Your task to perform on an android device: all mails in gmail Image 0: 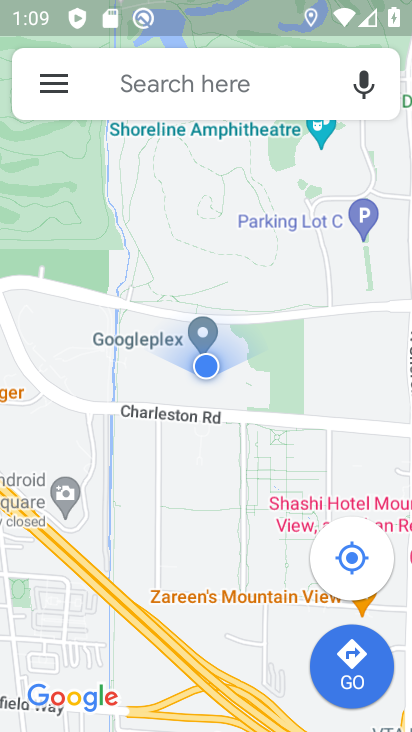
Step 0: press home button
Your task to perform on an android device: all mails in gmail Image 1: 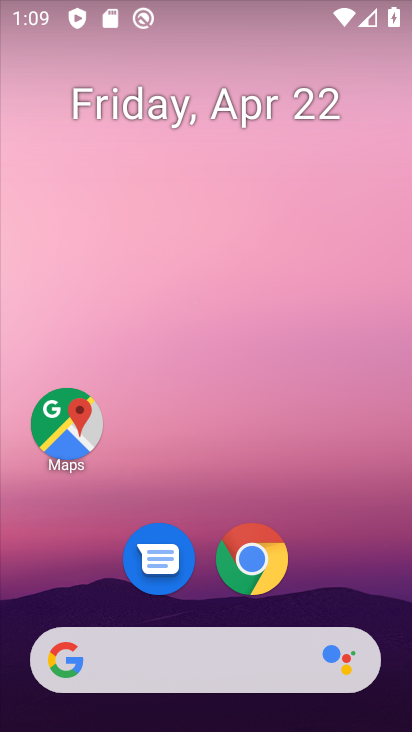
Step 1: drag from (202, 505) to (199, 239)
Your task to perform on an android device: all mails in gmail Image 2: 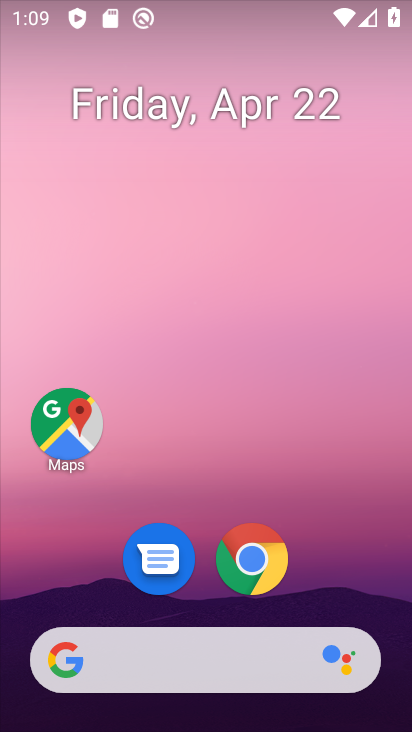
Step 2: drag from (228, 407) to (260, 41)
Your task to perform on an android device: all mails in gmail Image 3: 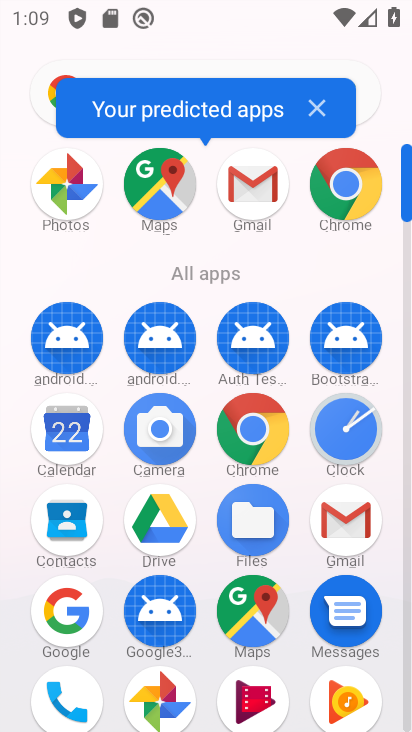
Step 3: click (254, 197)
Your task to perform on an android device: all mails in gmail Image 4: 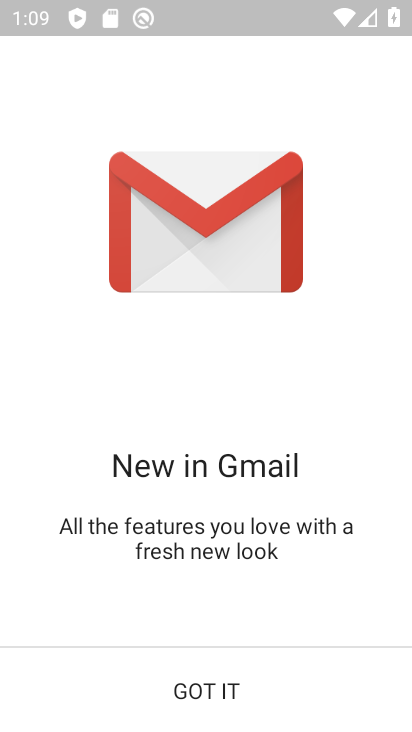
Step 4: click (228, 705)
Your task to perform on an android device: all mails in gmail Image 5: 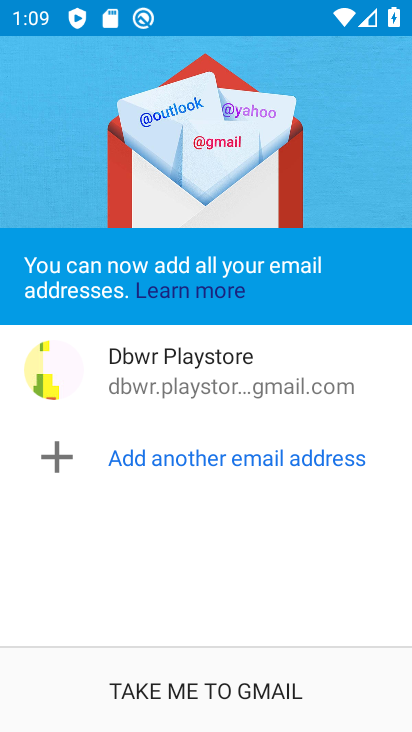
Step 5: click (228, 705)
Your task to perform on an android device: all mails in gmail Image 6: 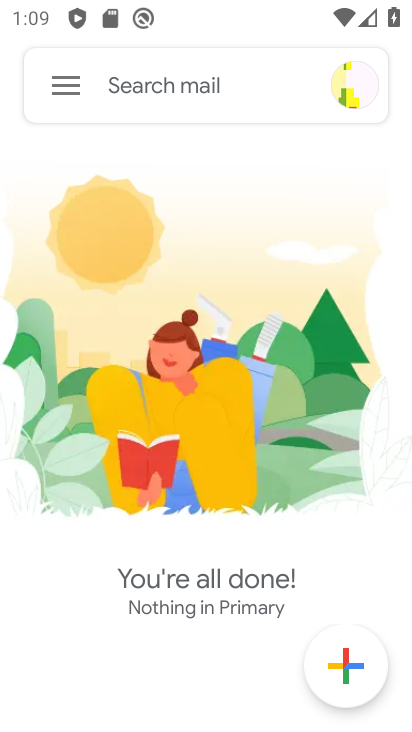
Step 6: click (65, 78)
Your task to perform on an android device: all mails in gmail Image 7: 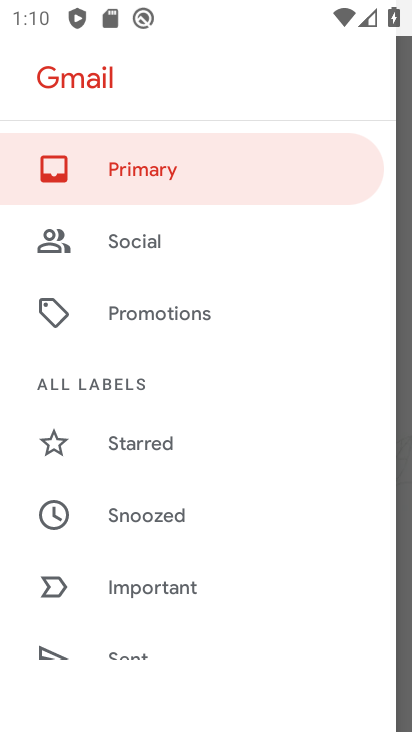
Step 7: click (182, 164)
Your task to perform on an android device: all mails in gmail Image 8: 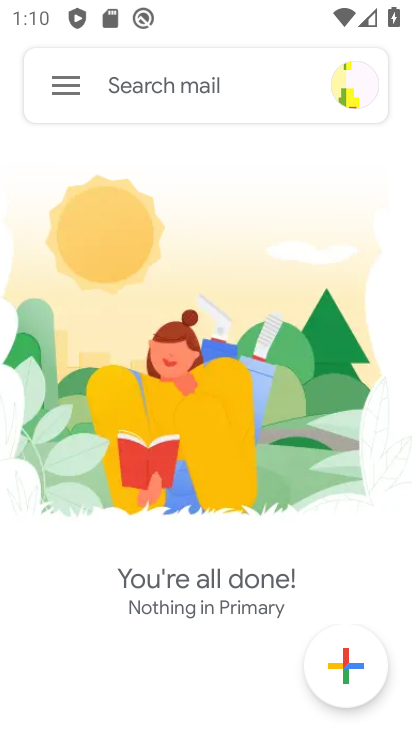
Step 8: task complete